Your task to perform on an android device: Turn off the flashlight Image 0: 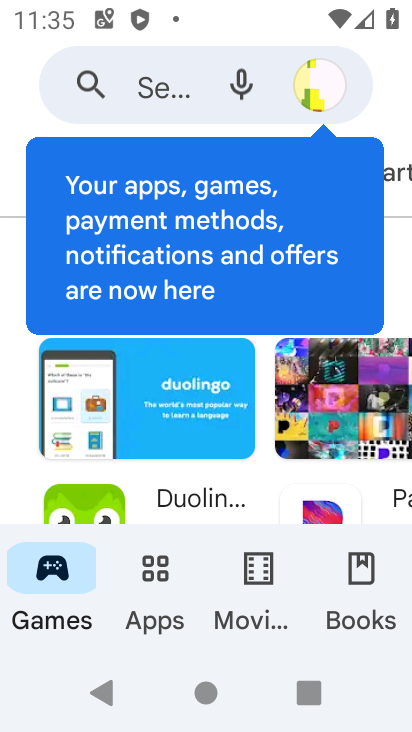
Step 0: press home button
Your task to perform on an android device: Turn off the flashlight Image 1: 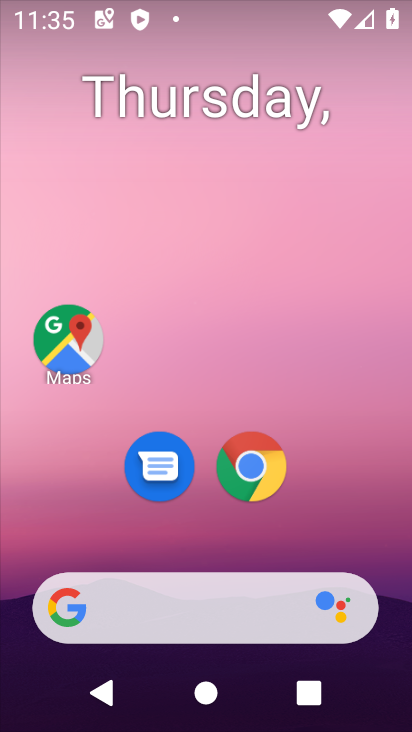
Step 1: drag from (379, 633) to (331, 34)
Your task to perform on an android device: Turn off the flashlight Image 2: 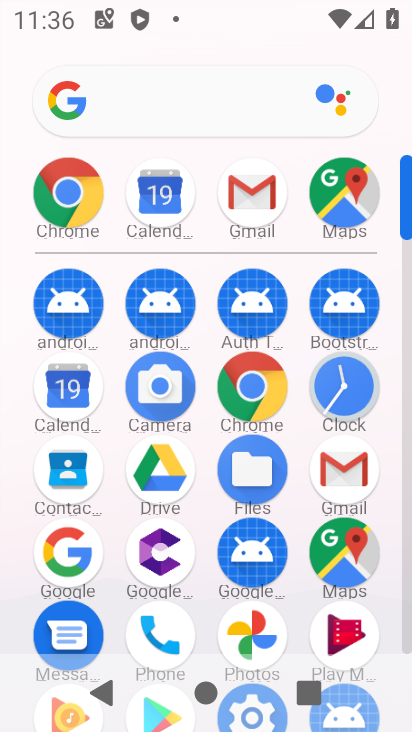
Step 2: drag from (300, 636) to (289, 65)
Your task to perform on an android device: Turn off the flashlight Image 3: 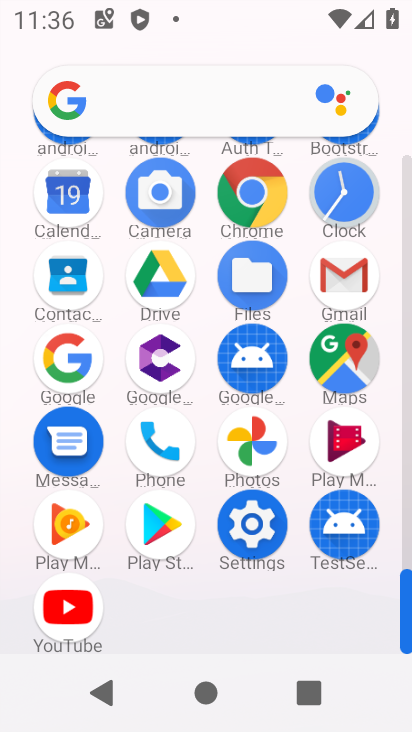
Step 3: click (256, 544)
Your task to perform on an android device: Turn off the flashlight Image 4: 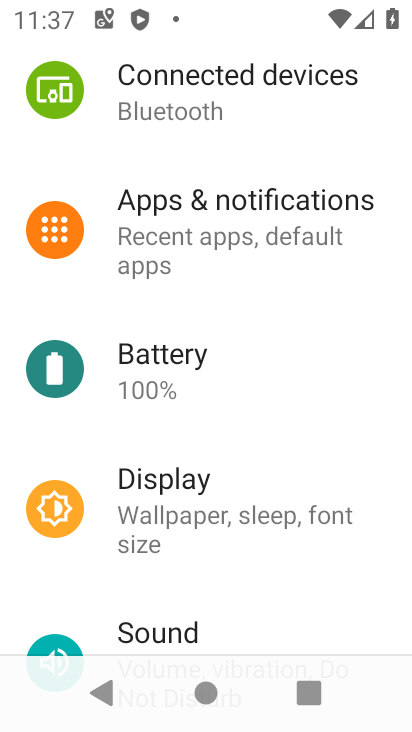
Step 4: task complete